Your task to perform on an android device: turn notification dots off Image 0: 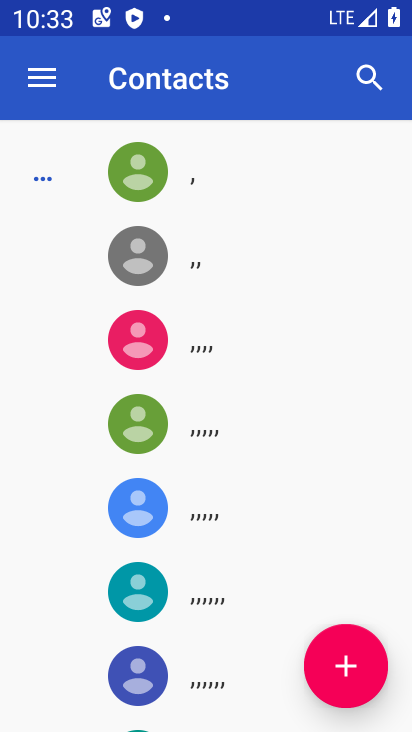
Step 0: press home button
Your task to perform on an android device: turn notification dots off Image 1: 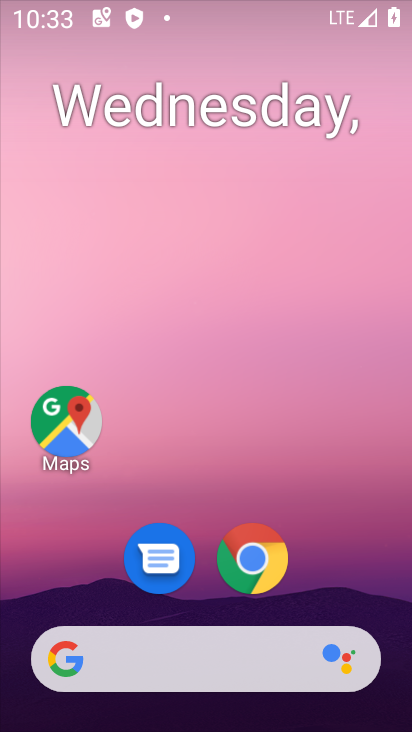
Step 1: drag from (11, 649) to (137, 196)
Your task to perform on an android device: turn notification dots off Image 2: 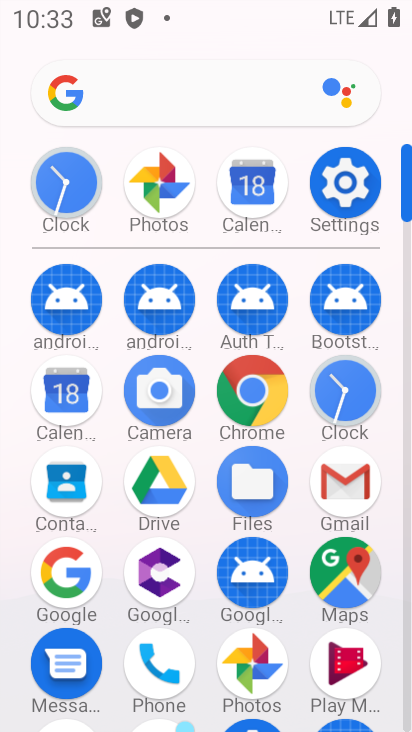
Step 2: click (327, 185)
Your task to perform on an android device: turn notification dots off Image 3: 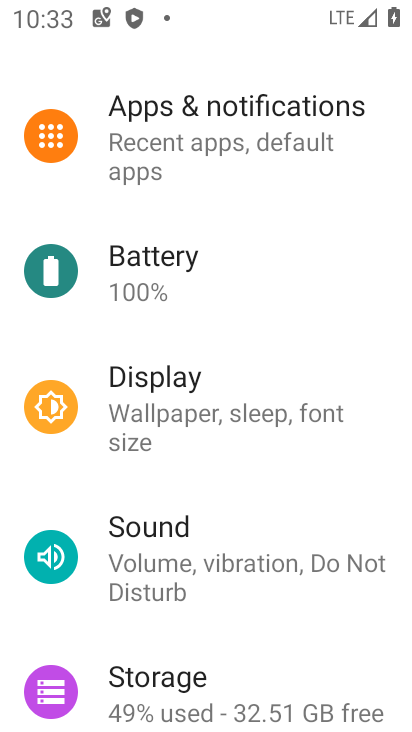
Step 3: click (213, 149)
Your task to perform on an android device: turn notification dots off Image 4: 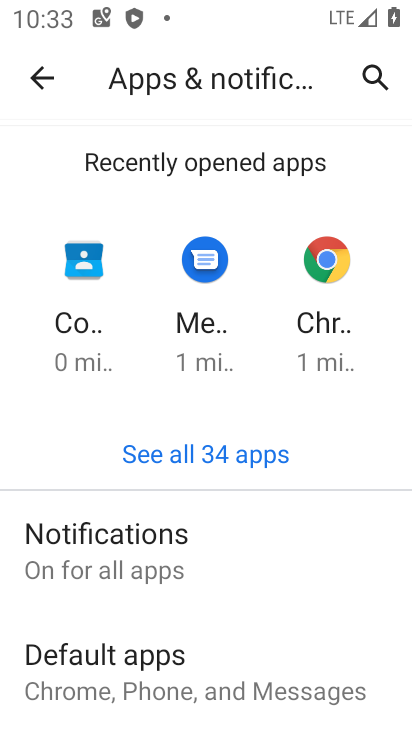
Step 4: click (22, 576)
Your task to perform on an android device: turn notification dots off Image 5: 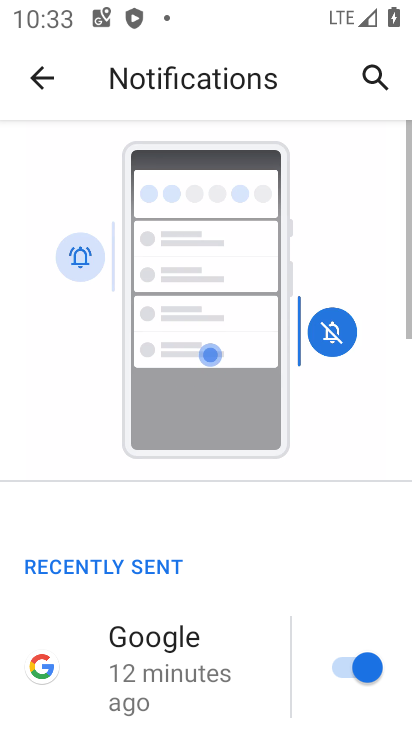
Step 5: drag from (10, 443) to (192, 138)
Your task to perform on an android device: turn notification dots off Image 6: 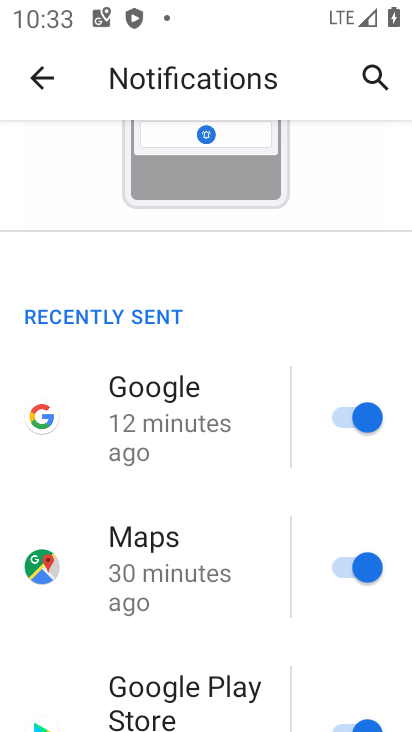
Step 6: drag from (15, 544) to (272, 204)
Your task to perform on an android device: turn notification dots off Image 7: 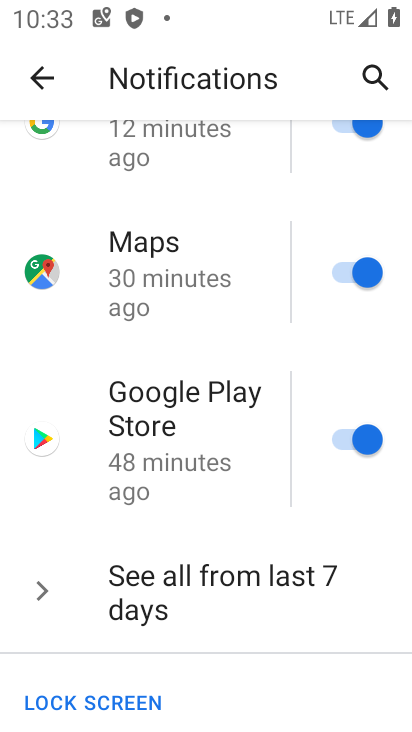
Step 7: drag from (16, 654) to (312, 188)
Your task to perform on an android device: turn notification dots off Image 8: 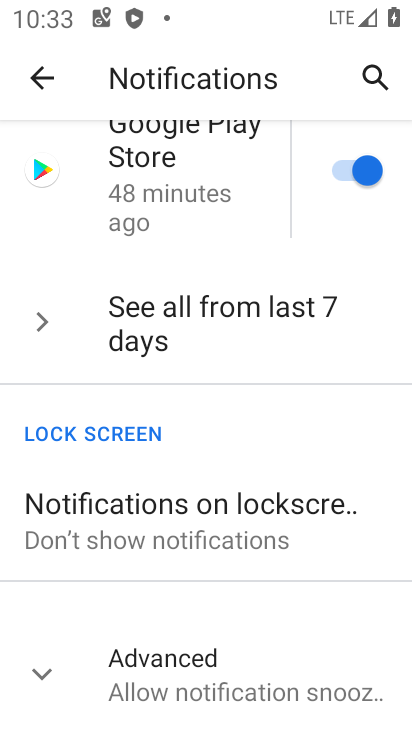
Step 8: click (93, 685)
Your task to perform on an android device: turn notification dots off Image 9: 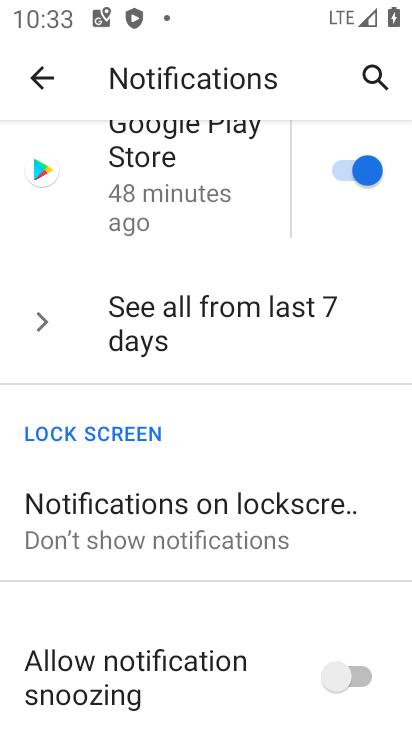
Step 9: click (304, 142)
Your task to perform on an android device: turn notification dots off Image 10: 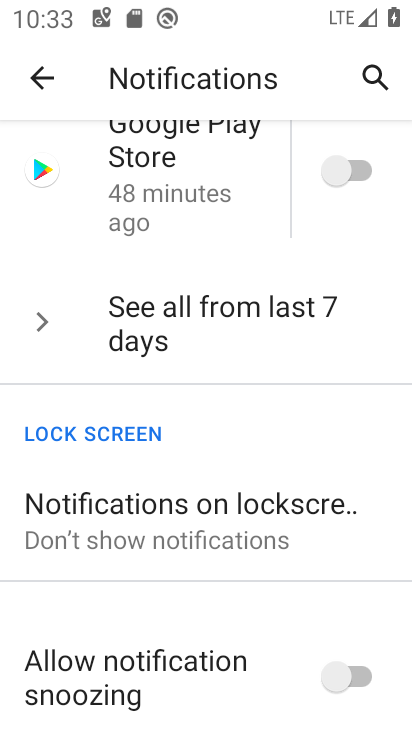
Step 10: drag from (37, 383) to (149, 141)
Your task to perform on an android device: turn notification dots off Image 11: 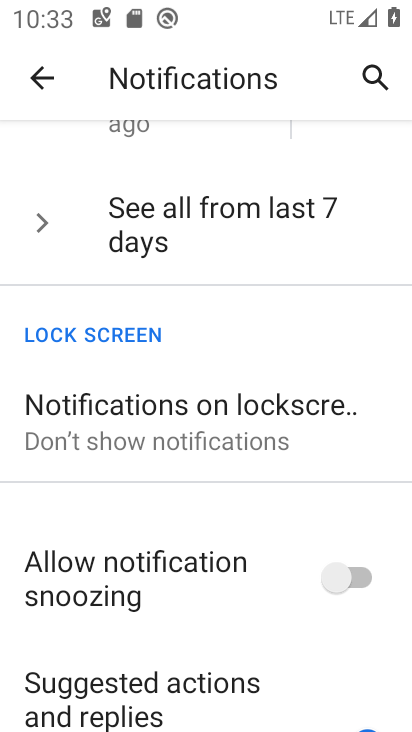
Step 11: drag from (17, 442) to (211, 130)
Your task to perform on an android device: turn notification dots off Image 12: 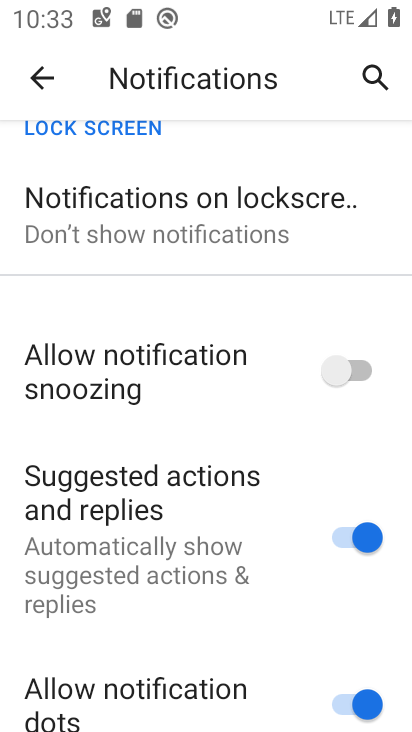
Step 12: drag from (71, 403) to (206, 178)
Your task to perform on an android device: turn notification dots off Image 13: 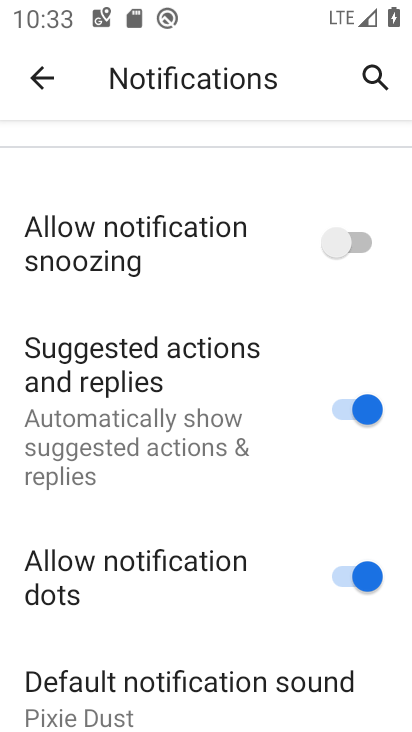
Step 13: click (372, 578)
Your task to perform on an android device: turn notification dots off Image 14: 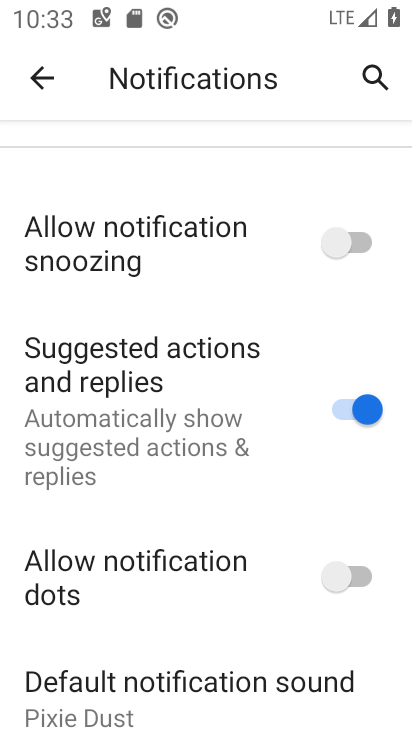
Step 14: task complete